Your task to perform on an android device: delete the emails in spam in the gmail app Image 0: 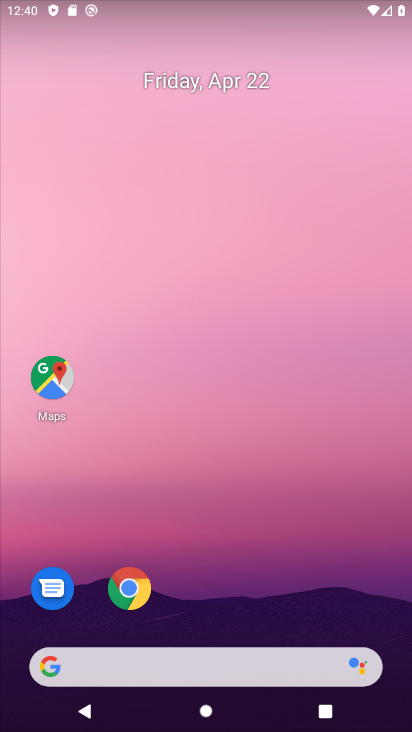
Step 0: drag from (371, 560) to (347, 135)
Your task to perform on an android device: delete the emails in spam in the gmail app Image 1: 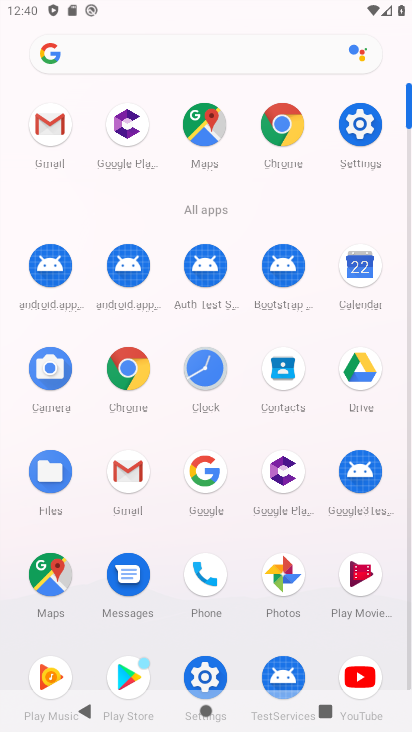
Step 1: click (135, 477)
Your task to perform on an android device: delete the emails in spam in the gmail app Image 2: 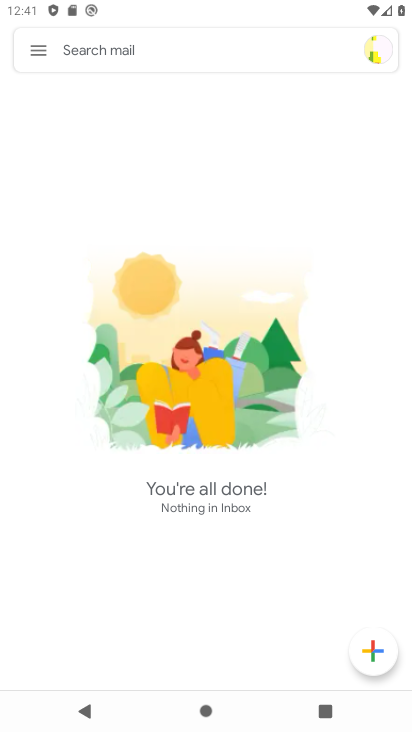
Step 2: click (37, 48)
Your task to perform on an android device: delete the emails in spam in the gmail app Image 3: 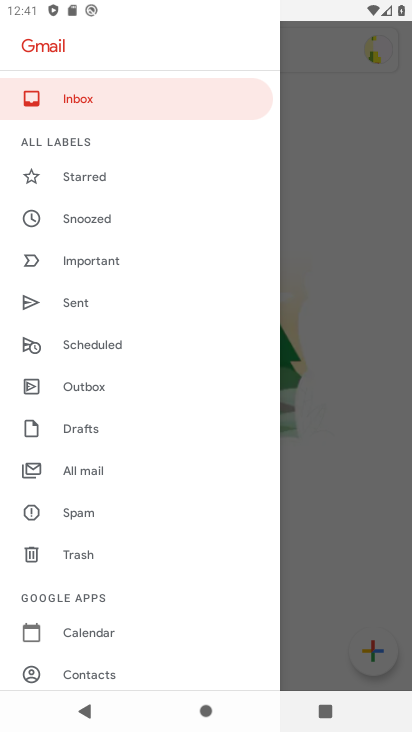
Step 3: click (83, 509)
Your task to perform on an android device: delete the emails in spam in the gmail app Image 4: 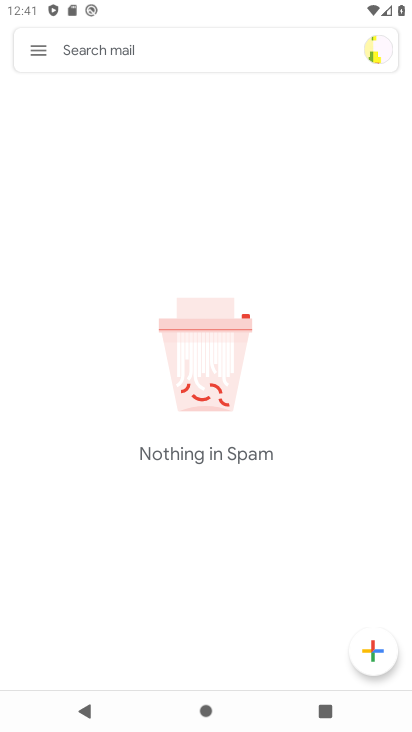
Step 4: task complete